Your task to perform on an android device: empty trash in the gmail app Image 0: 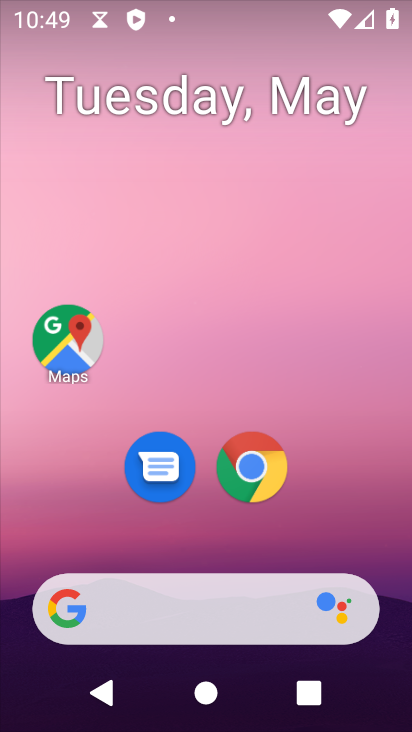
Step 0: drag from (369, 522) to (394, 396)
Your task to perform on an android device: empty trash in the gmail app Image 1: 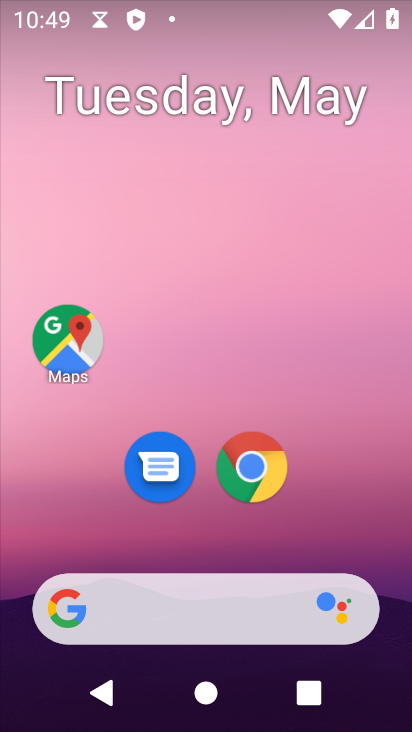
Step 1: click (167, 210)
Your task to perform on an android device: empty trash in the gmail app Image 2: 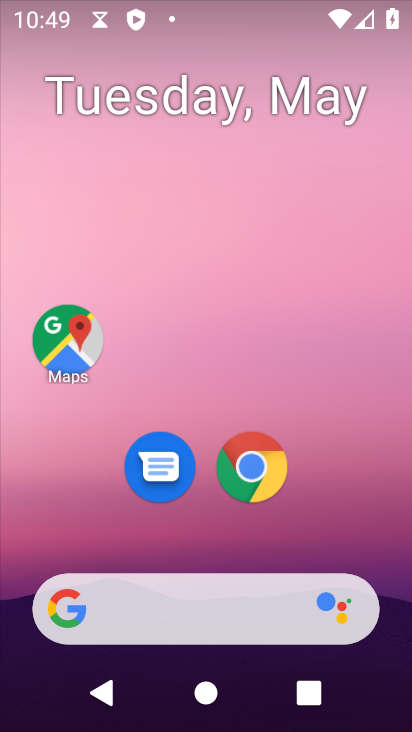
Step 2: drag from (367, 504) to (238, 13)
Your task to perform on an android device: empty trash in the gmail app Image 3: 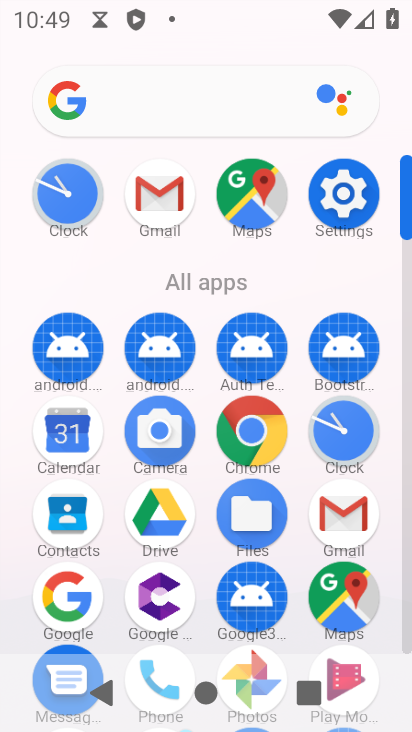
Step 3: click (185, 205)
Your task to perform on an android device: empty trash in the gmail app Image 4: 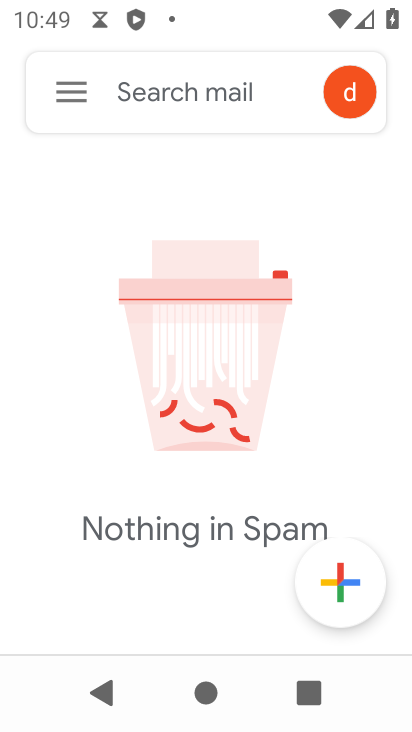
Step 4: click (81, 101)
Your task to perform on an android device: empty trash in the gmail app Image 5: 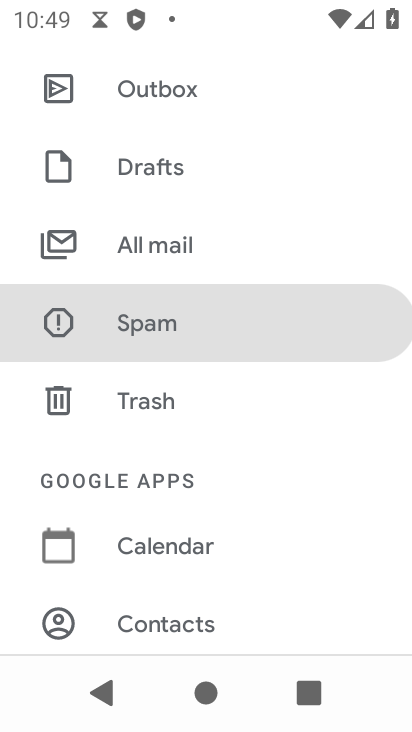
Step 5: click (184, 397)
Your task to perform on an android device: empty trash in the gmail app Image 6: 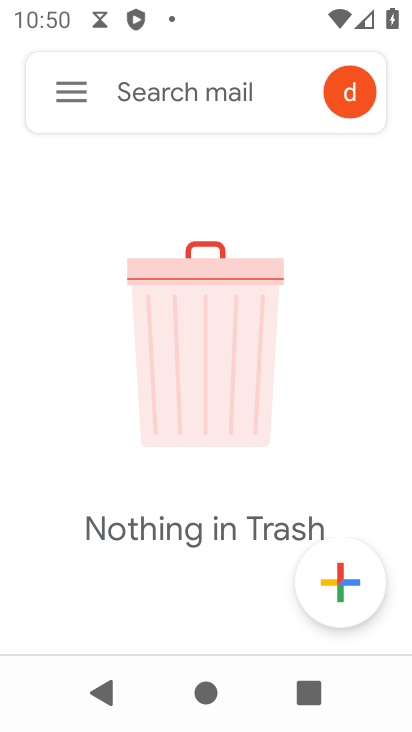
Step 6: task complete